Your task to perform on an android device: Open Google Maps Image 0: 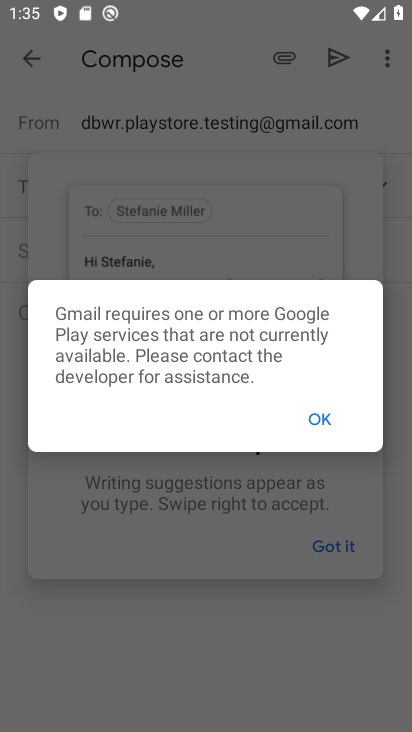
Step 0: press home button
Your task to perform on an android device: Open Google Maps Image 1: 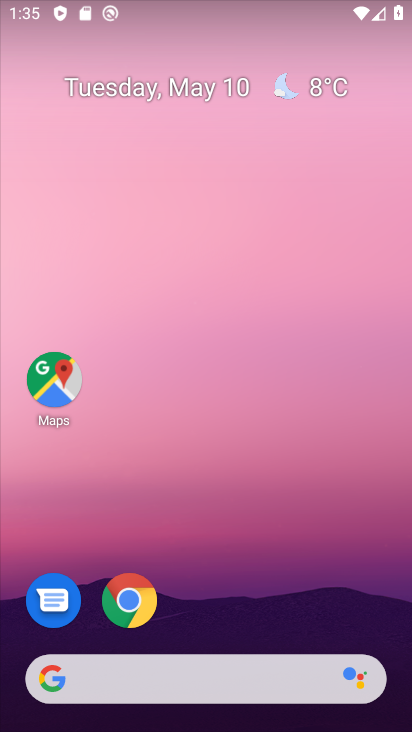
Step 1: click (57, 375)
Your task to perform on an android device: Open Google Maps Image 2: 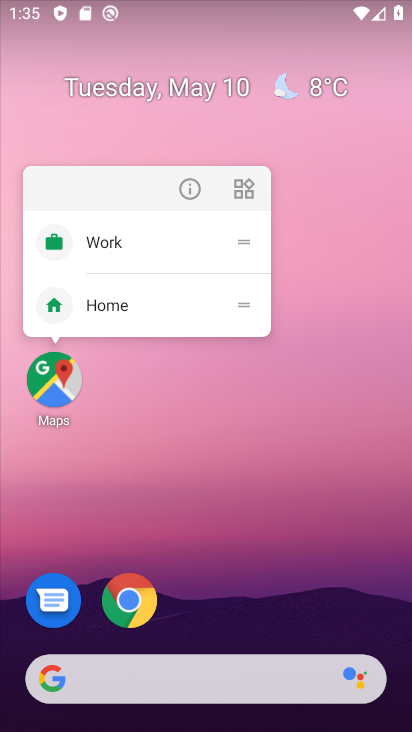
Step 2: click (54, 375)
Your task to perform on an android device: Open Google Maps Image 3: 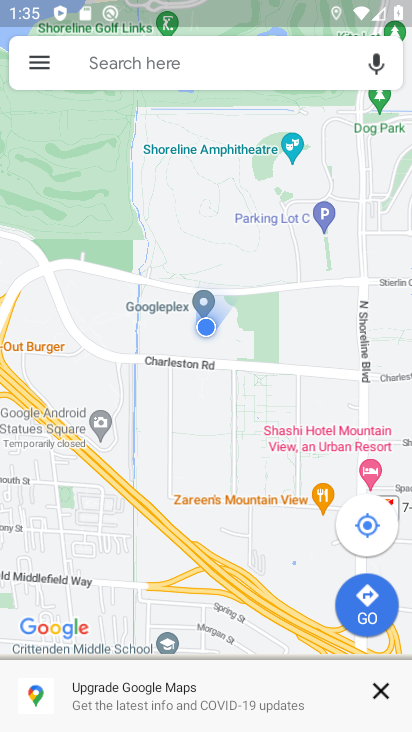
Step 3: task complete